Your task to perform on an android device: turn off notifications settings in the gmail app Image 0: 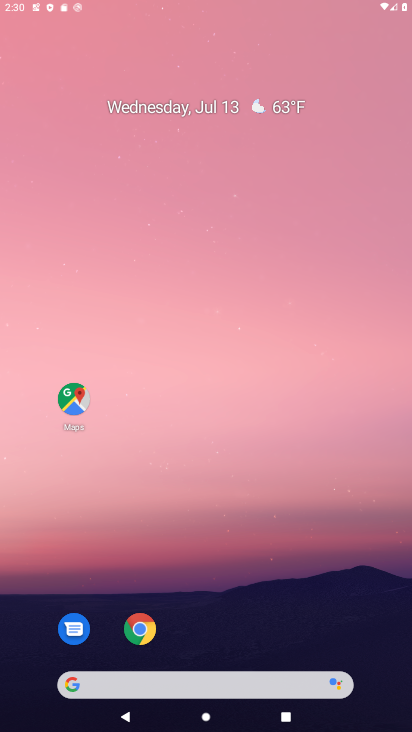
Step 0: drag from (223, 664) to (349, 46)
Your task to perform on an android device: turn off notifications settings in the gmail app Image 1: 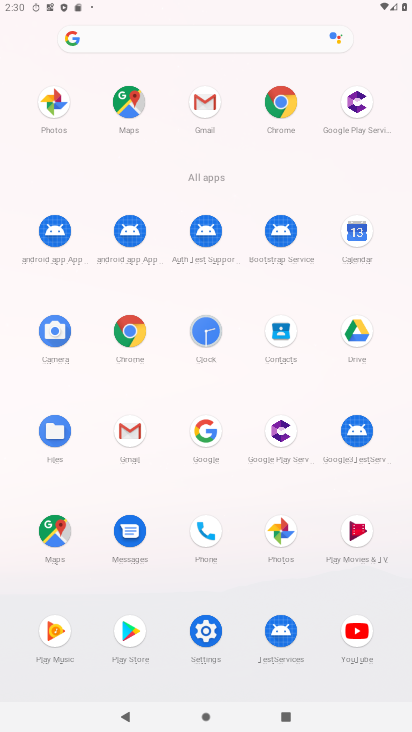
Step 1: click (128, 433)
Your task to perform on an android device: turn off notifications settings in the gmail app Image 2: 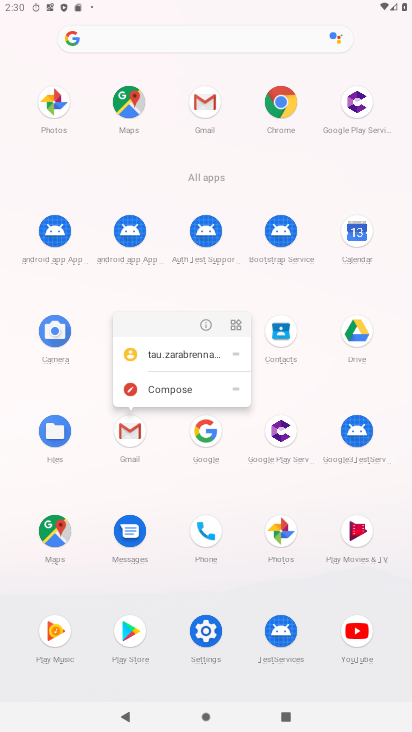
Step 2: click (202, 317)
Your task to perform on an android device: turn off notifications settings in the gmail app Image 3: 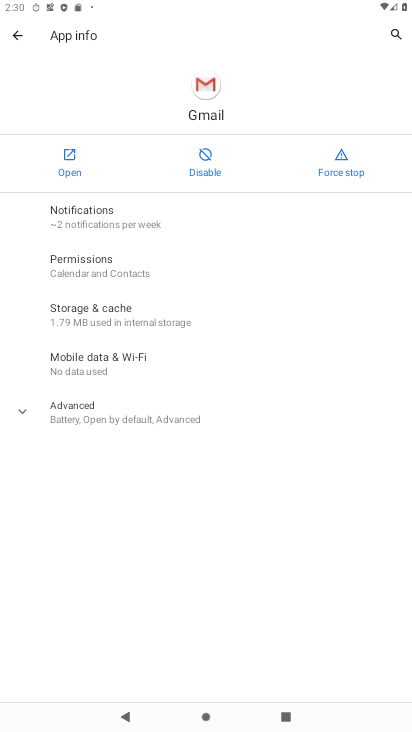
Step 3: click (73, 153)
Your task to perform on an android device: turn off notifications settings in the gmail app Image 4: 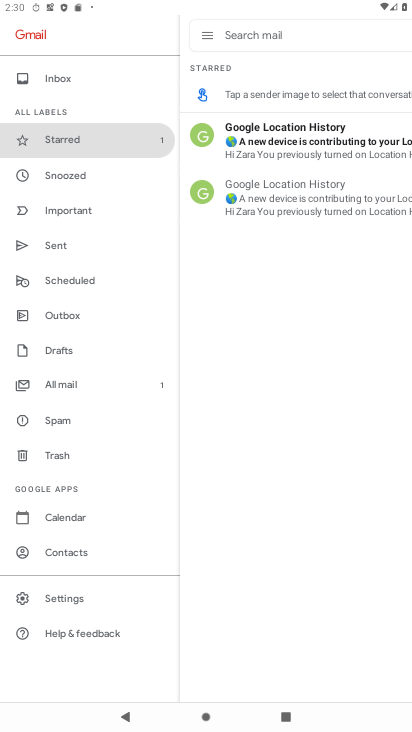
Step 4: click (78, 599)
Your task to perform on an android device: turn off notifications settings in the gmail app Image 5: 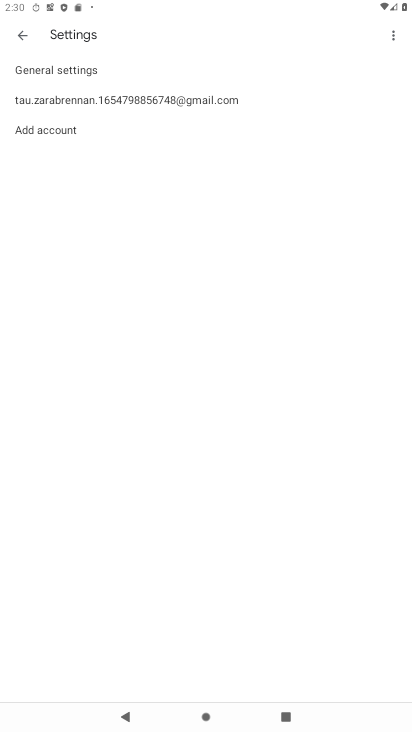
Step 5: click (232, 127)
Your task to perform on an android device: turn off notifications settings in the gmail app Image 6: 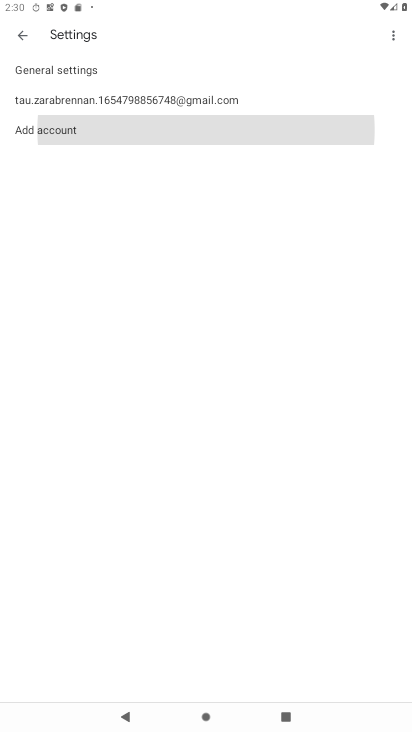
Step 6: click (231, 108)
Your task to perform on an android device: turn off notifications settings in the gmail app Image 7: 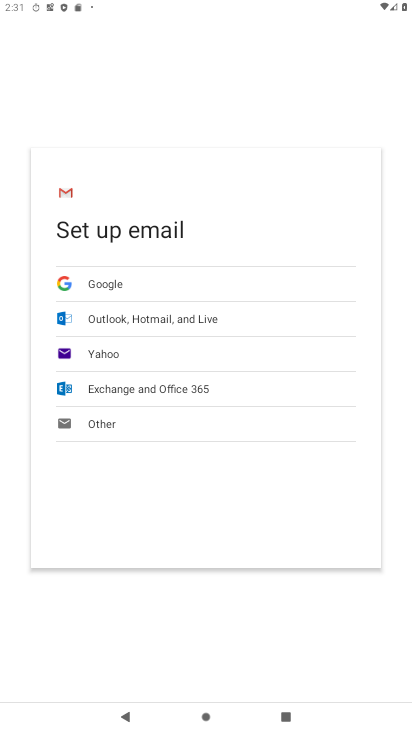
Step 7: drag from (189, 352) to (201, 292)
Your task to perform on an android device: turn off notifications settings in the gmail app Image 8: 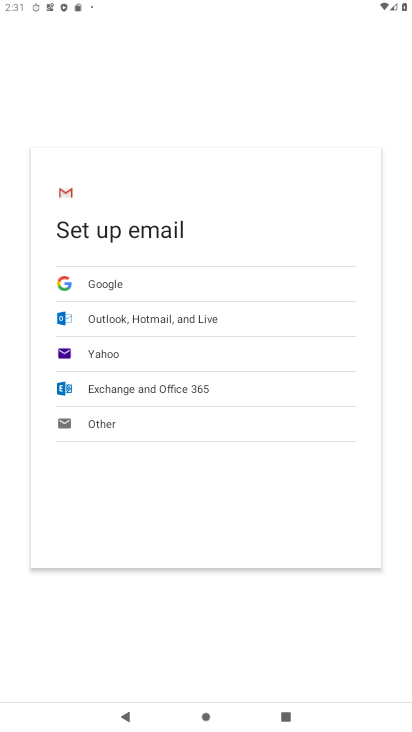
Step 8: press home button
Your task to perform on an android device: turn off notifications settings in the gmail app Image 9: 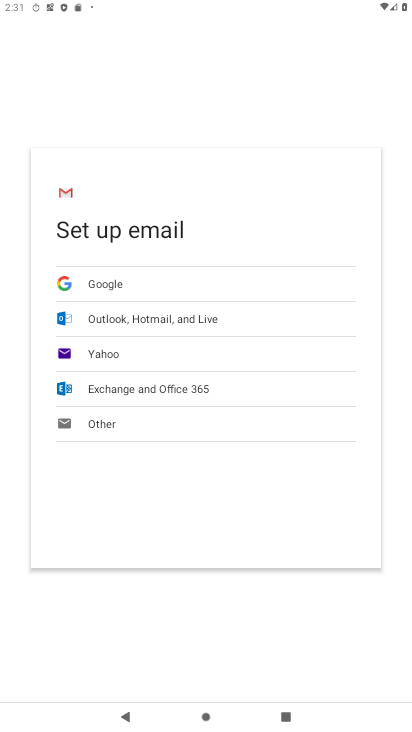
Step 9: drag from (182, 548) to (286, 88)
Your task to perform on an android device: turn off notifications settings in the gmail app Image 10: 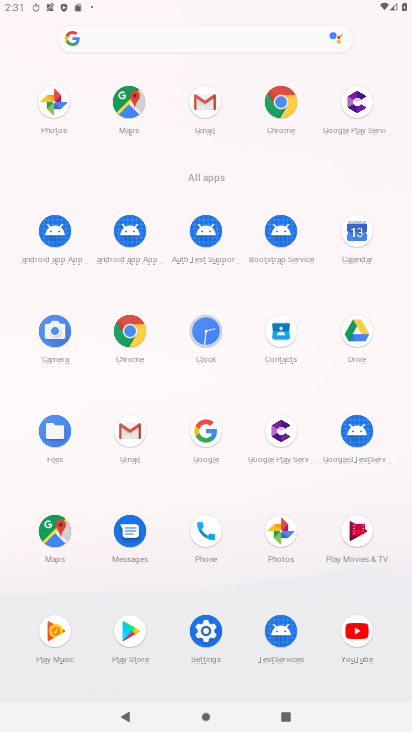
Step 10: click (136, 436)
Your task to perform on an android device: turn off notifications settings in the gmail app Image 11: 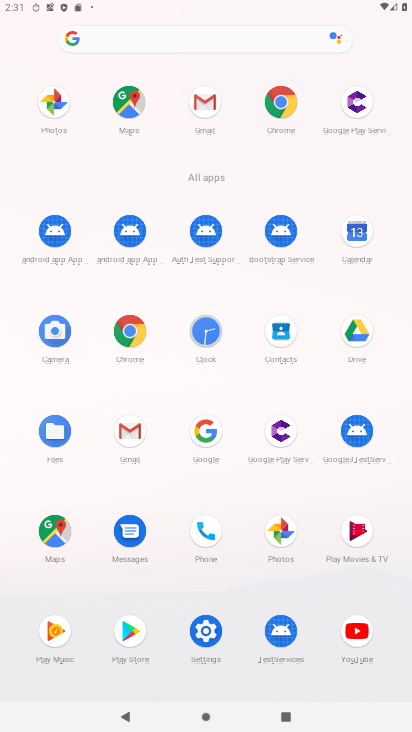
Step 11: click (136, 436)
Your task to perform on an android device: turn off notifications settings in the gmail app Image 12: 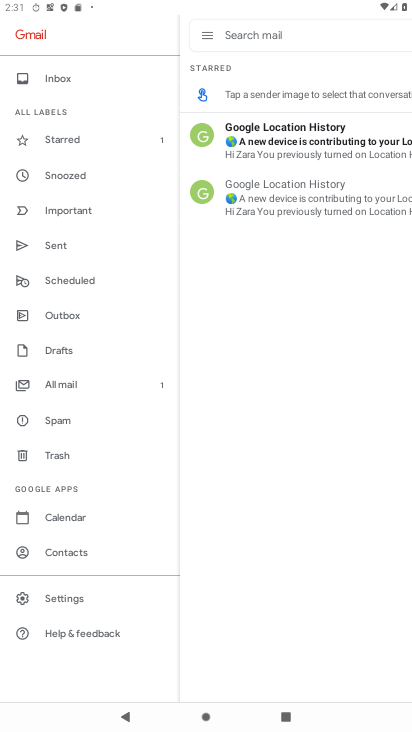
Step 12: click (52, 595)
Your task to perform on an android device: turn off notifications settings in the gmail app Image 13: 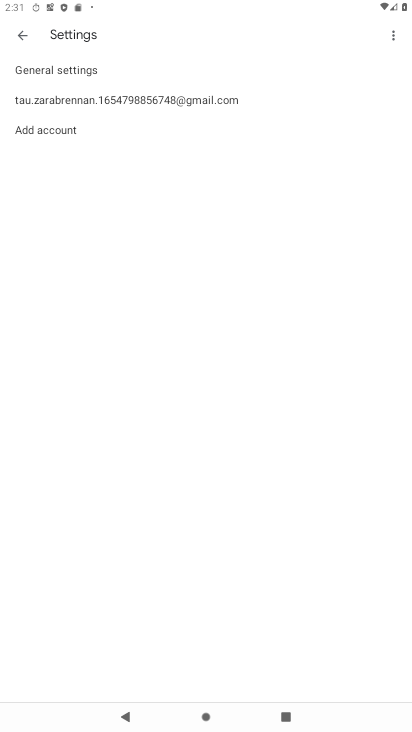
Step 13: click (134, 109)
Your task to perform on an android device: turn off notifications settings in the gmail app Image 14: 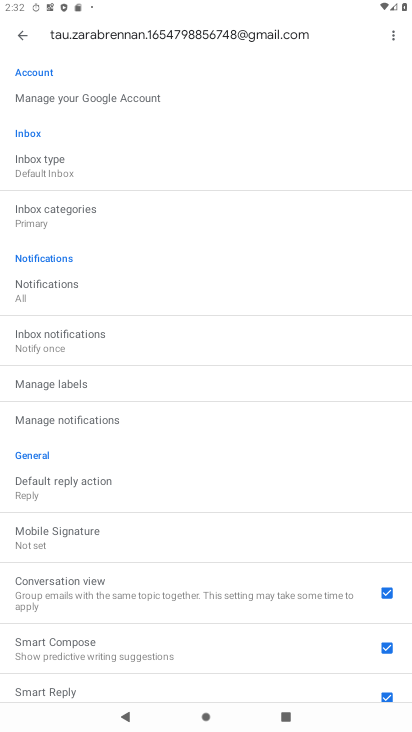
Step 14: click (84, 286)
Your task to perform on an android device: turn off notifications settings in the gmail app Image 15: 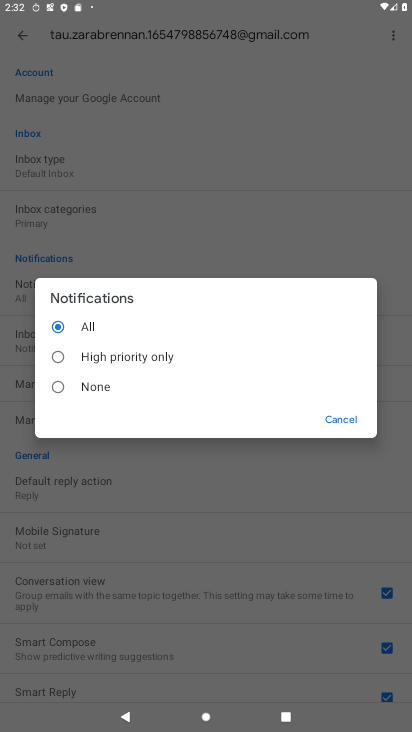
Step 15: click (341, 413)
Your task to perform on an android device: turn off notifications settings in the gmail app Image 16: 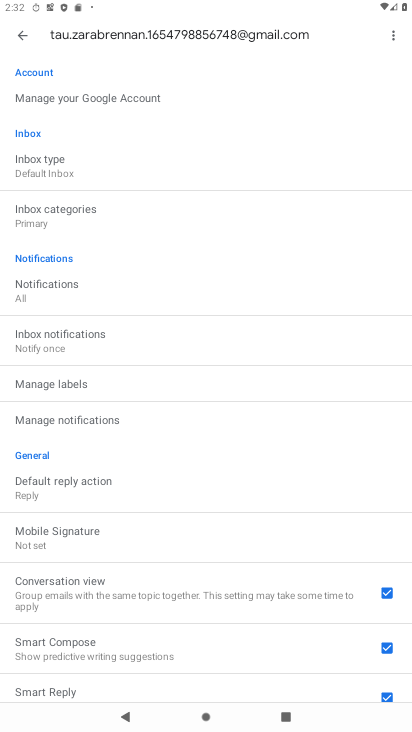
Step 16: click (48, 419)
Your task to perform on an android device: turn off notifications settings in the gmail app Image 17: 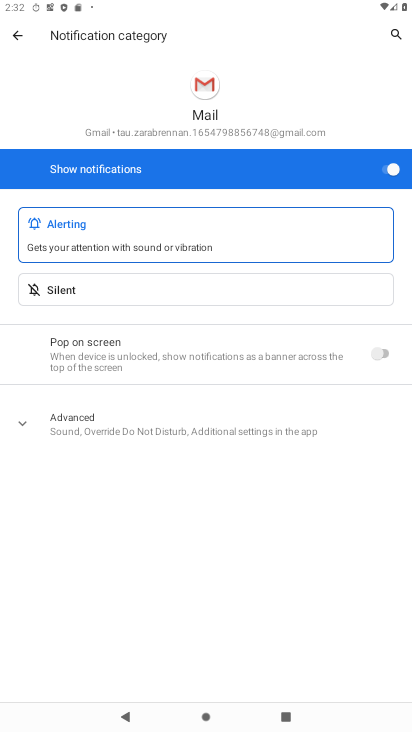
Step 17: click (386, 163)
Your task to perform on an android device: turn off notifications settings in the gmail app Image 18: 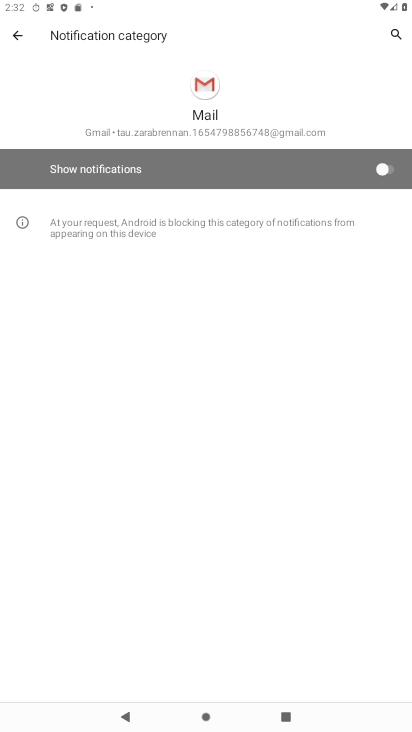
Step 18: task complete